Your task to perform on an android device: see tabs open on other devices in the chrome app Image 0: 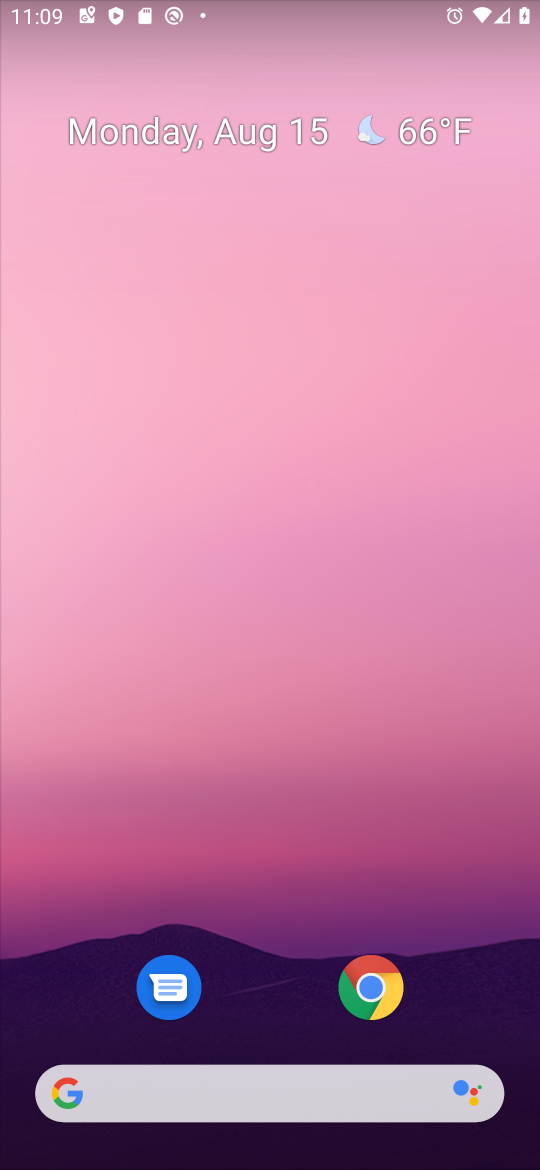
Step 0: drag from (266, 1080) to (241, 215)
Your task to perform on an android device: see tabs open on other devices in the chrome app Image 1: 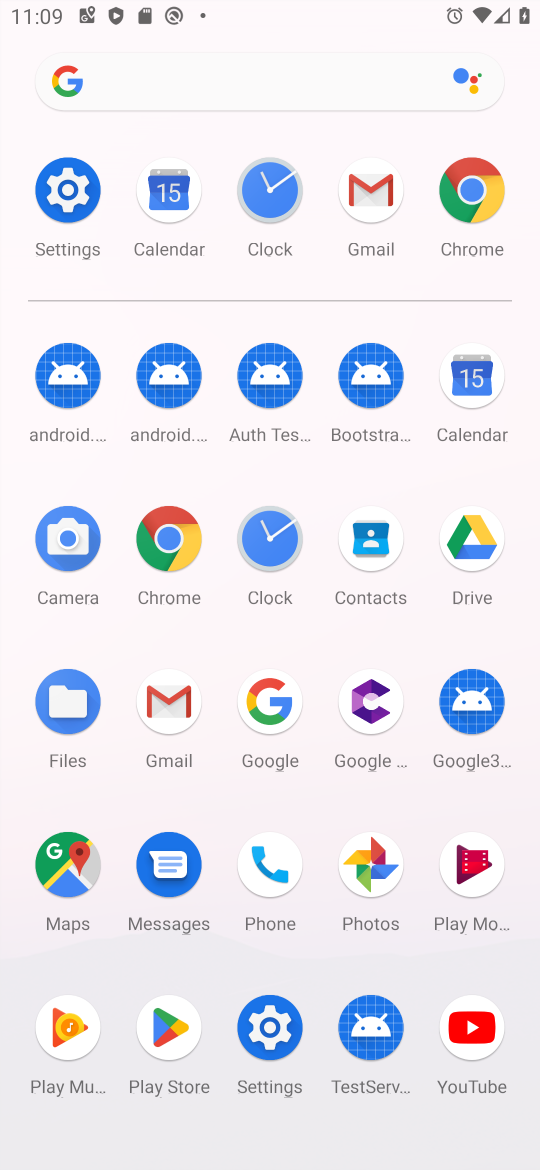
Step 1: click (169, 517)
Your task to perform on an android device: see tabs open on other devices in the chrome app Image 2: 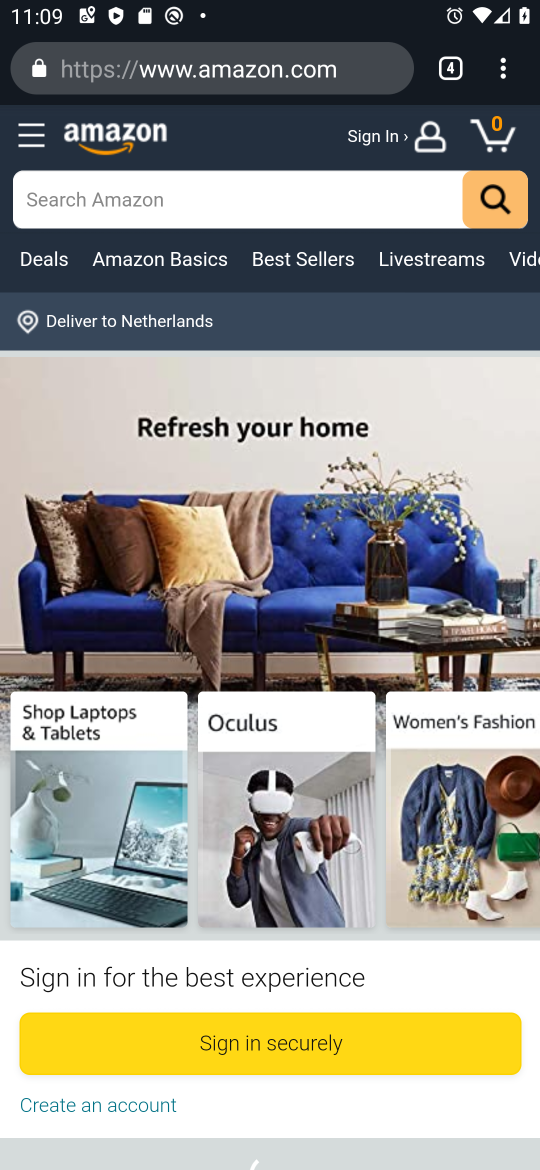
Step 2: click (447, 70)
Your task to perform on an android device: see tabs open on other devices in the chrome app Image 3: 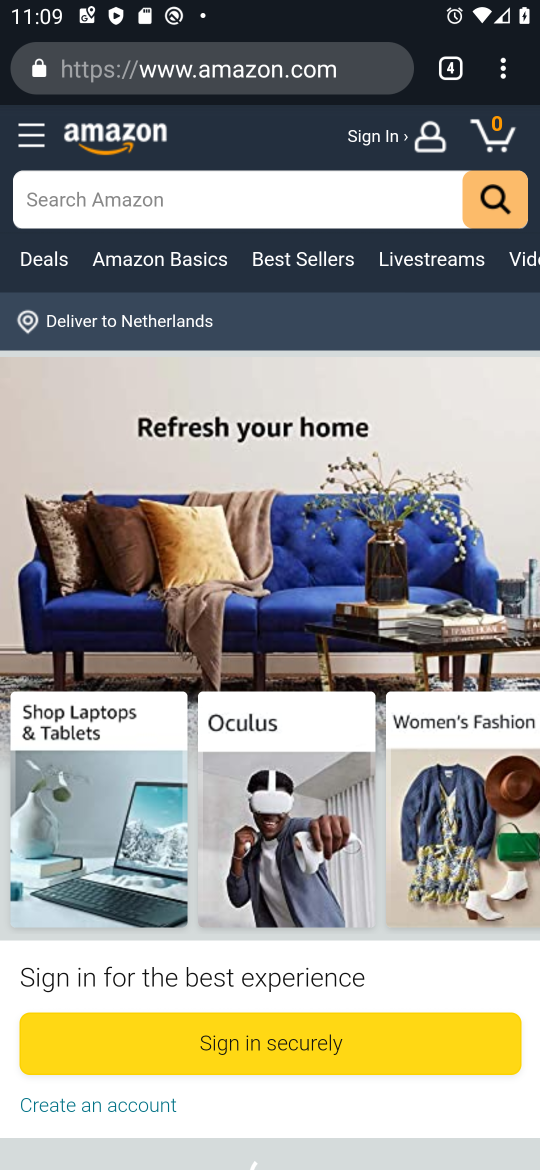
Step 3: click (435, 78)
Your task to perform on an android device: see tabs open on other devices in the chrome app Image 4: 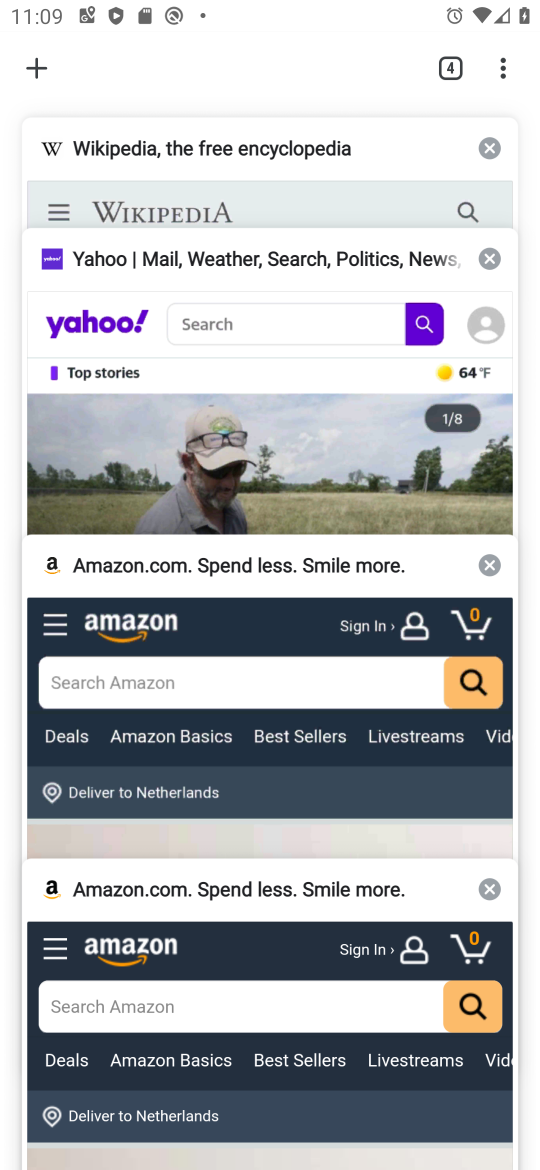
Step 4: click (45, 77)
Your task to perform on an android device: see tabs open on other devices in the chrome app Image 5: 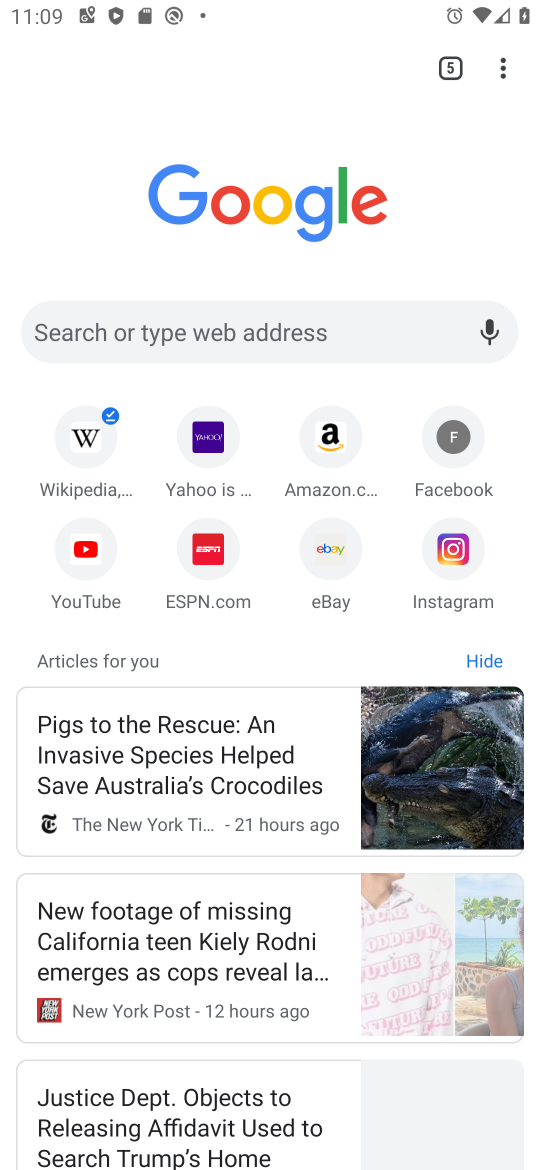
Step 5: task complete